Your task to perform on an android device: Open calendar and show me the first week of next month Image 0: 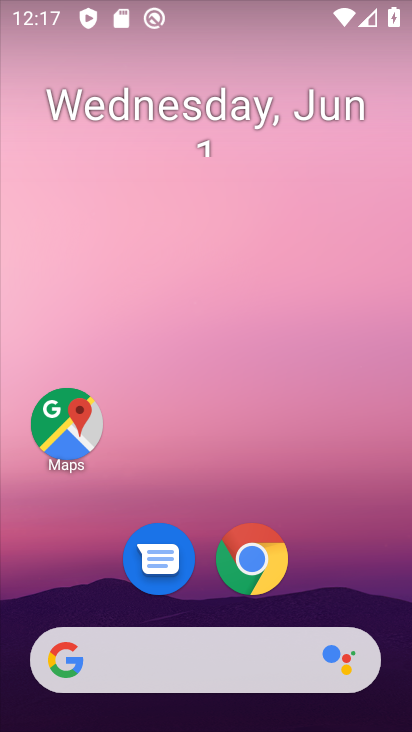
Step 0: drag from (299, 605) to (313, 200)
Your task to perform on an android device: Open calendar and show me the first week of next month Image 1: 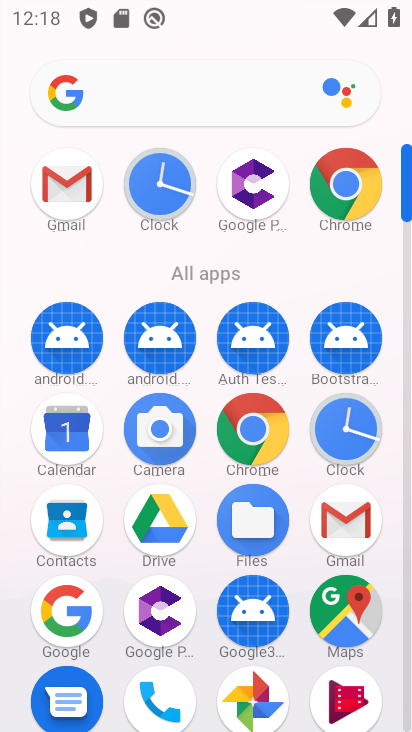
Step 1: click (53, 437)
Your task to perform on an android device: Open calendar and show me the first week of next month Image 2: 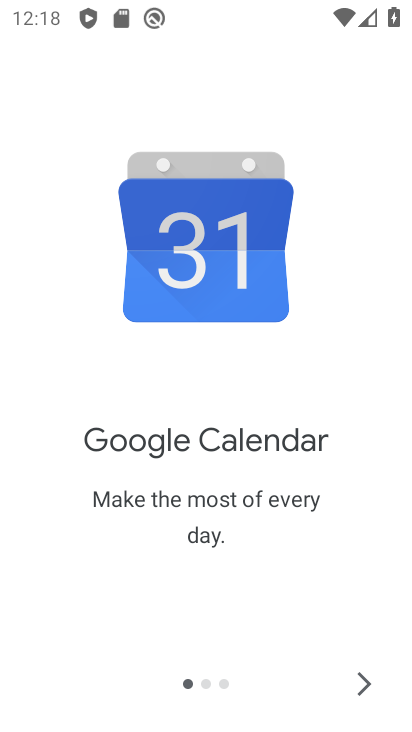
Step 2: click (364, 686)
Your task to perform on an android device: Open calendar and show me the first week of next month Image 3: 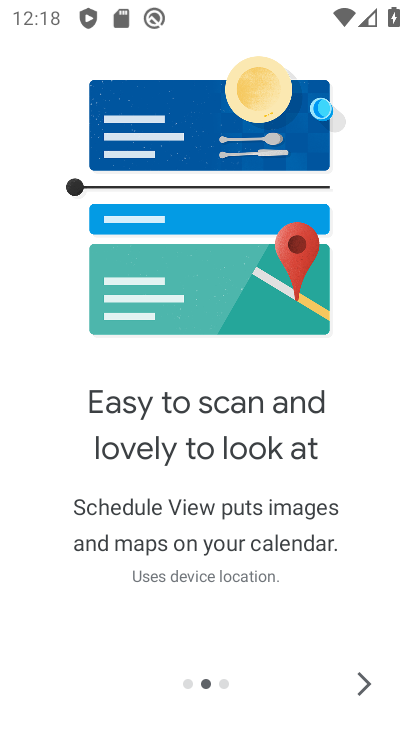
Step 3: click (359, 683)
Your task to perform on an android device: Open calendar and show me the first week of next month Image 4: 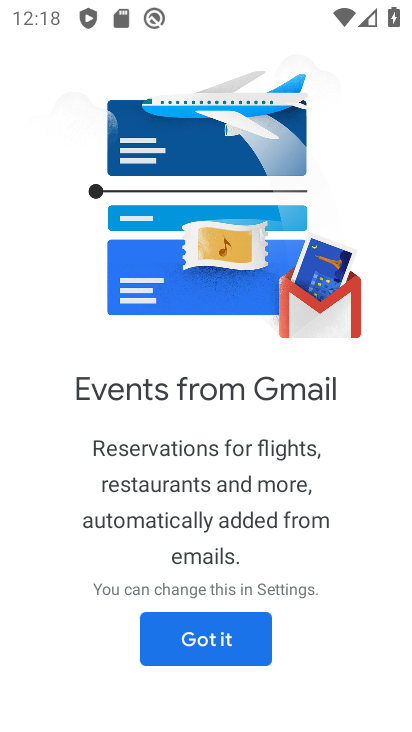
Step 4: click (209, 646)
Your task to perform on an android device: Open calendar and show me the first week of next month Image 5: 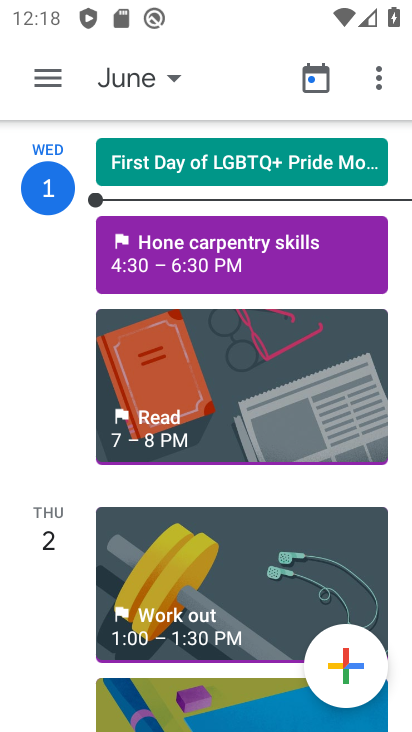
Step 5: click (59, 76)
Your task to perform on an android device: Open calendar and show me the first week of next month Image 6: 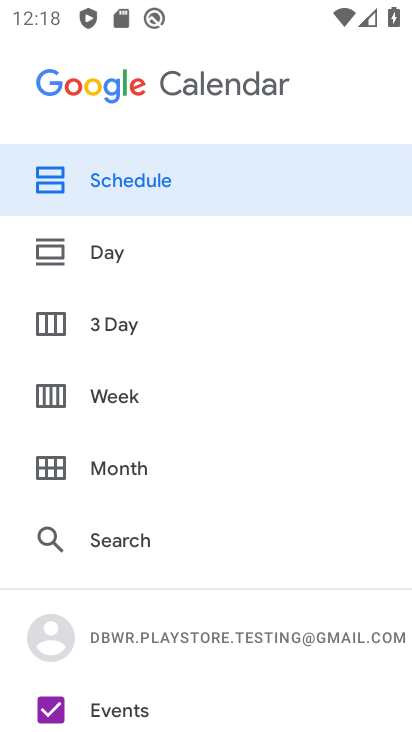
Step 6: click (124, 479)
Your task to perform on an android device: Open calendar and show me the first week of next month Image 7: 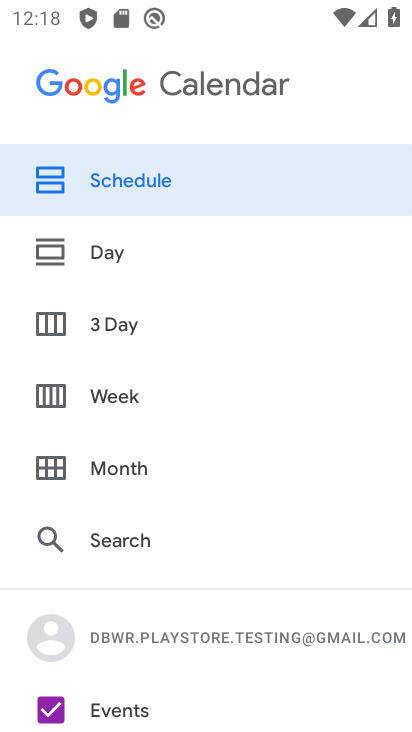
Step 7: click (128, 468)
Your task to perform on an android device: Open calendar and show me the first week of next month Image 8: 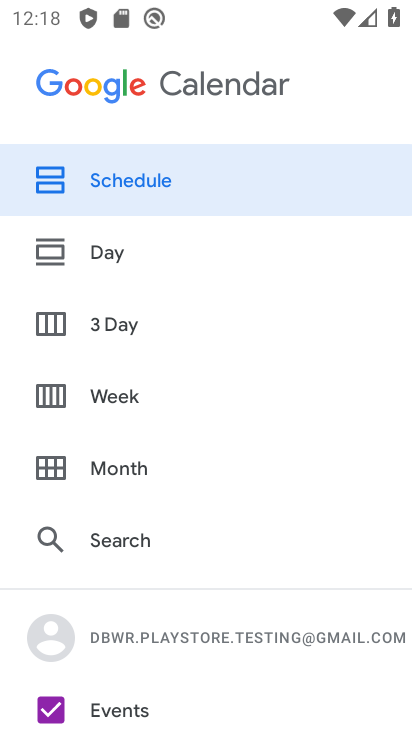
Step 8: click (127, 469)
Your task to perform on an android device: Open calendar and show me the first week of next month Image 9: 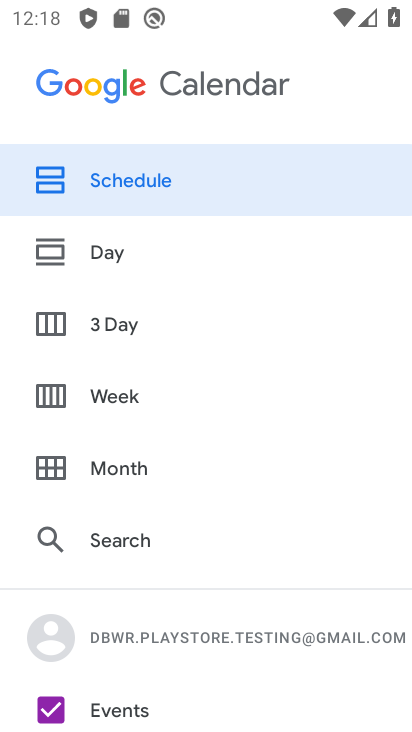
Step 9: click (107, 469)
Your task to perform on an android device: Open calendar and show me the first week of next month Image 10: 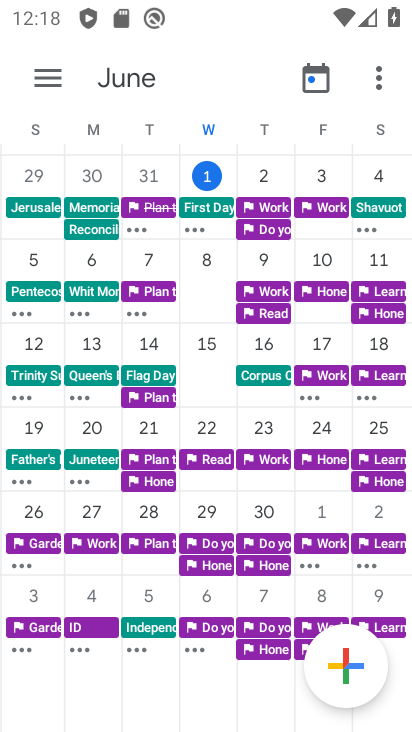
Step 10: task complete